Your task to perform on an android device: Add "alienware aurora" to the cart on target, then select checkout. Image 0: 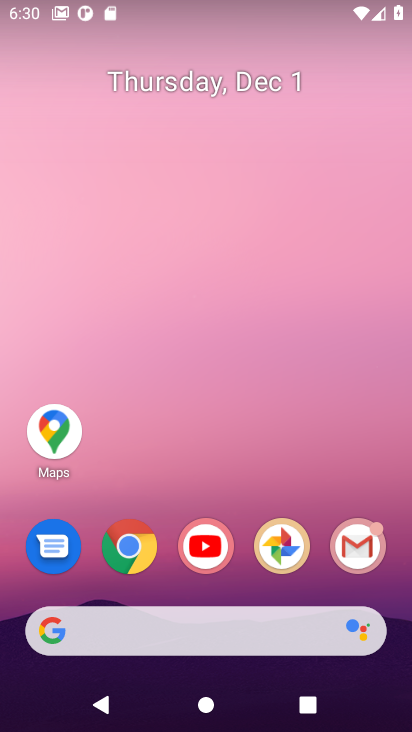
Step 0: click (129, 542)
Your task to perform on an android device: Add "alienware aurora" to the cart on target, then select checkout. Image 1: 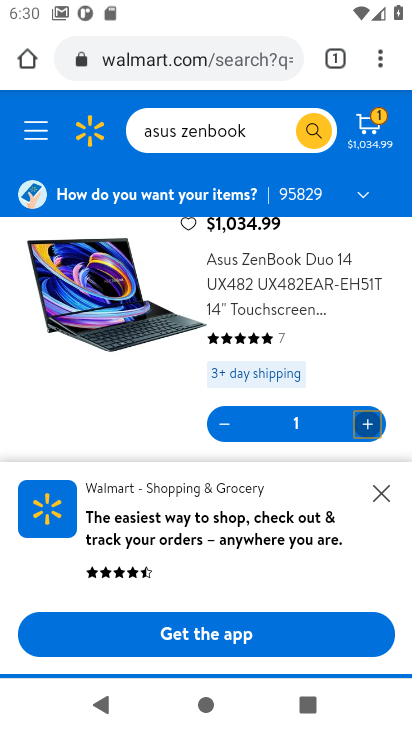
Step 1: click (167, 52)
Your task to perform on an android device: Add "alienware aurora" to the cart on target, then select checkout. Image 2: 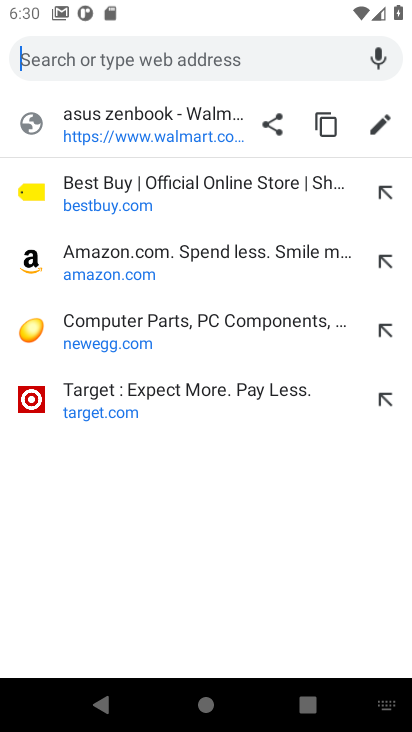
Step 2: click (88, 391)
Your task to perform on an android device: Add "alienware aurora" to the cart on target, then select checkout. Image 3: 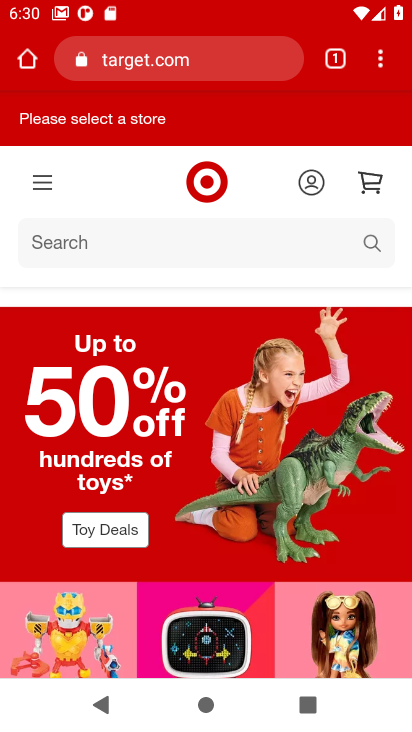
Step 3: click (44, 243)
Your task to perform on an android device: Add "alienware aurora" to the cart on target, then select checkout. Image 4: 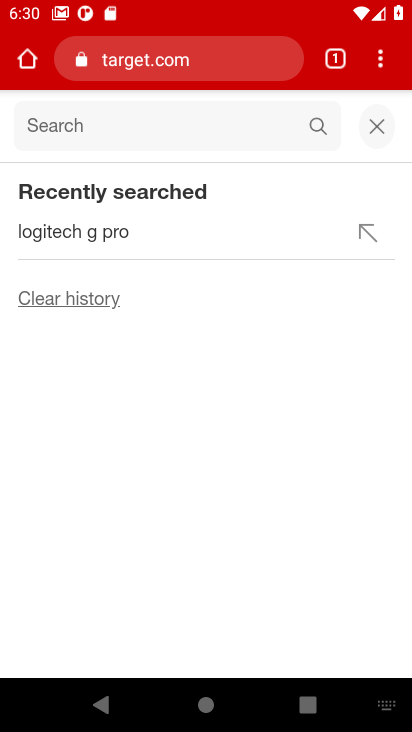
Step 4: type "alienware aurora"
Your task to perform on an android device: Add "alienware aurora" to the cart on target, then select checkout. Image 5: 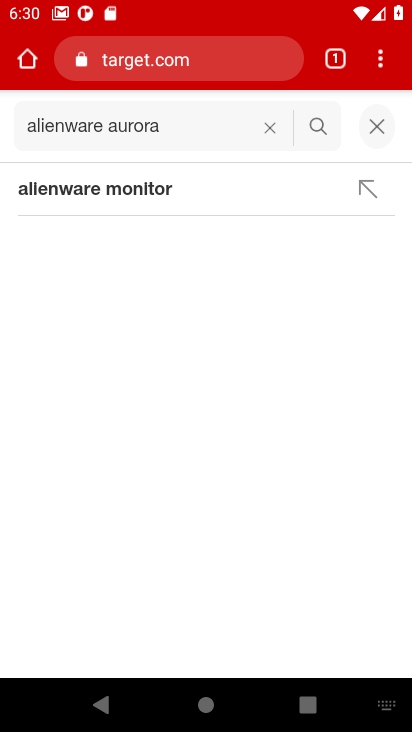
Step 5: click (319, 128)
Your task to perform on an android device: Add "alienware aurora" to the cart on target, then select checkout. Image 6: 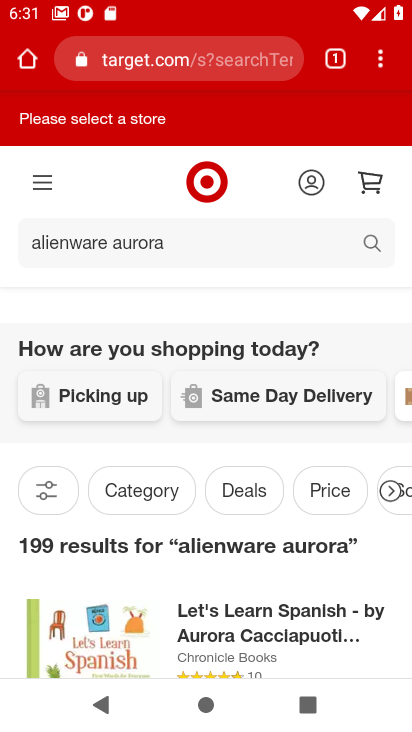
Step 6: task complete